Your task to perform on an android device: change your default location settings in chrome Image 0: 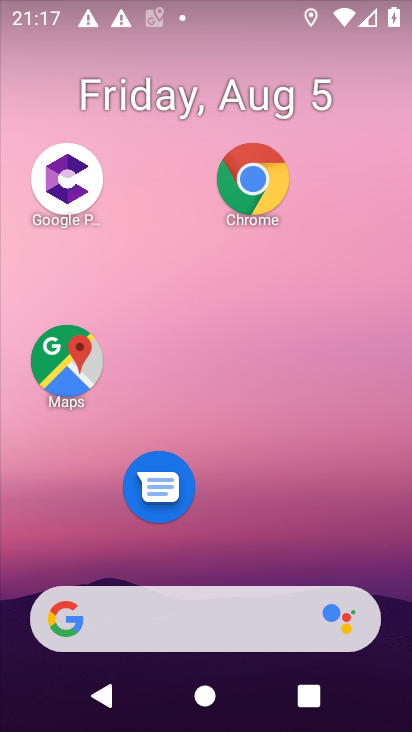
Step 0: drag from (285, 559) to (202, 0)
Your task to perform on an android device: change your default location settings in chrome Image 1: 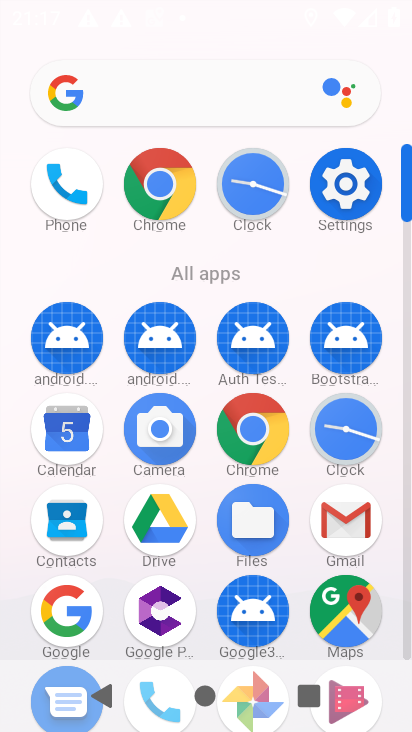
Step 1: click (160, 187)
Your task to perform on an android device: change your default location settings in chrome Image 2: 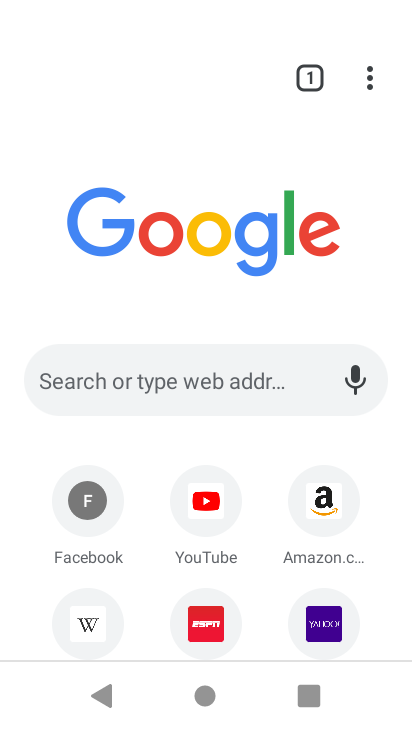
Step 2: click (365, 83)
Your task to perform on an android device: change your default location settings in chrome Image 3: 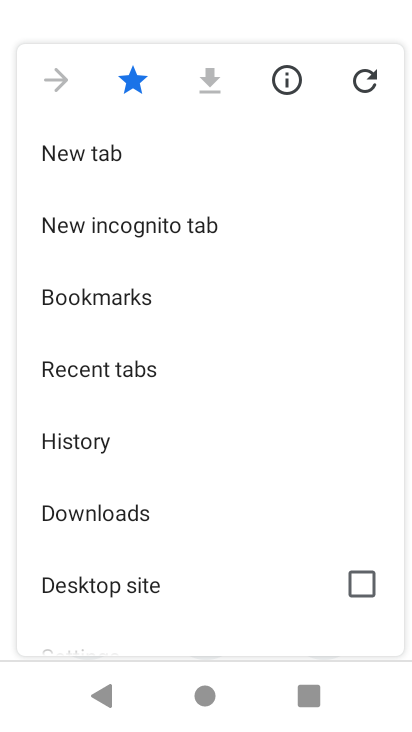
Step 3: drag from (143, 606) to (0, 241)
Your task to perform on an android device: change your default location settings in chrome Image 4: 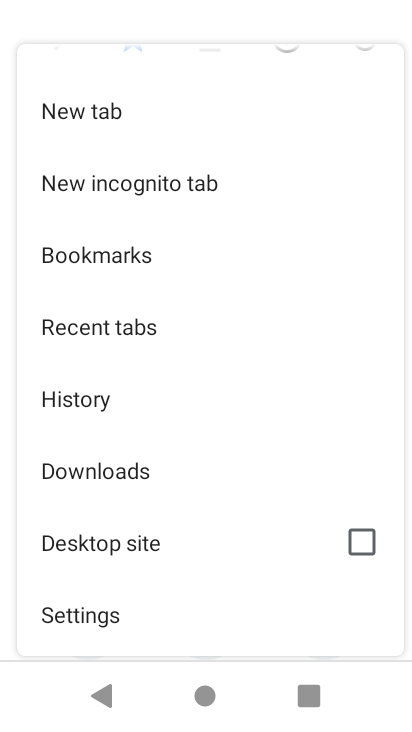
Step 4: click (87, 594)
Your task to perform on an android device: change your default location settings in chrome Image 5: 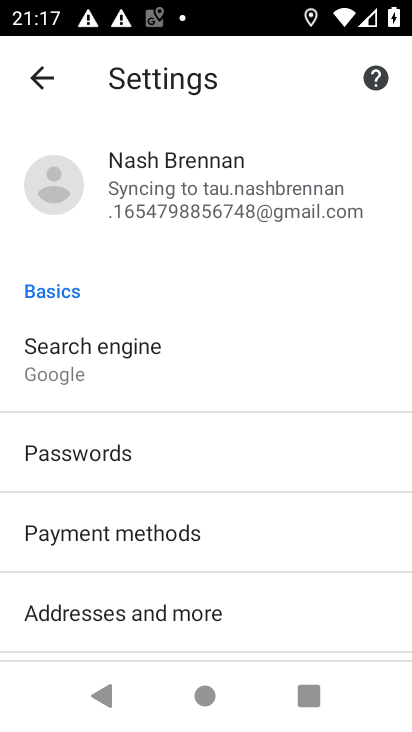
Step 5: drag from (87, 594) to (91, 2)
Your task to perform on an android device: change your default location settings in chrome Image 6: 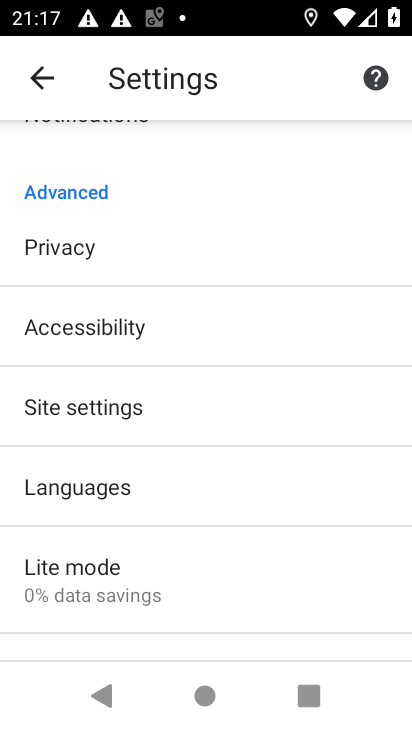
Step 6: click (147, 434)
Your task to perform on an android device: change your default location settings in chrome Image 7: 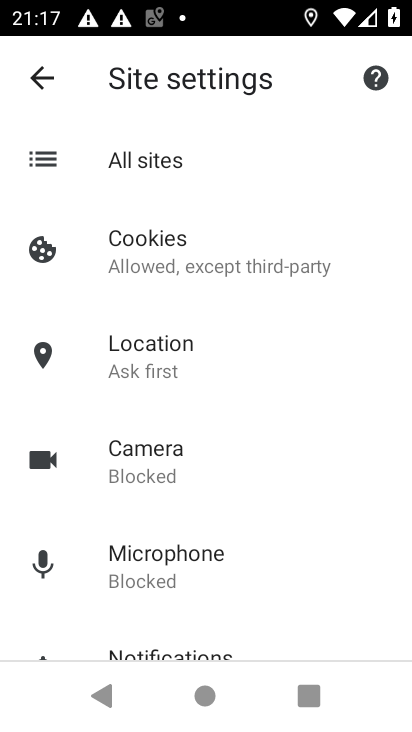
Step 7: click (190, 358)
Your task to perform on an android device: change your default location settings in chrome Image 8: 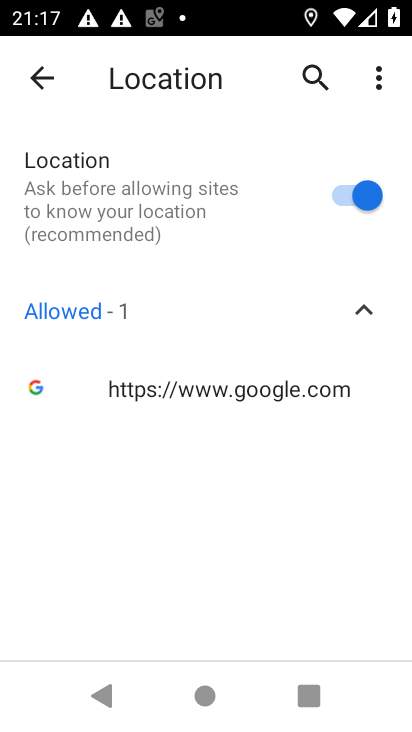
Step 8: click (335, 196)
Your task to perform on an android device: change your default location settings in chrome Image 9: 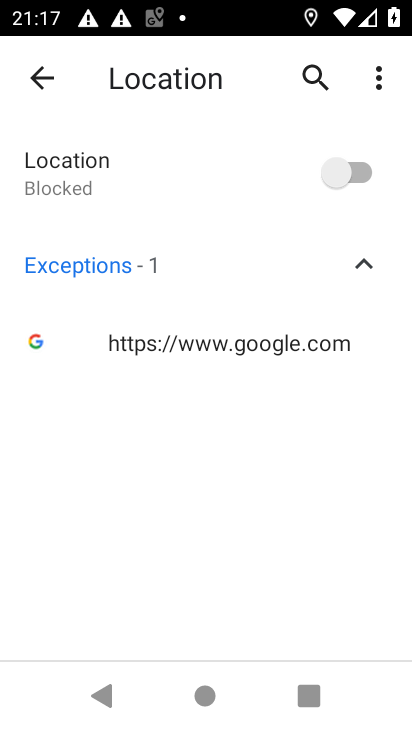
Step 9: task complete